Your task to perform on an android device: find photos in the google photos app Image 0: 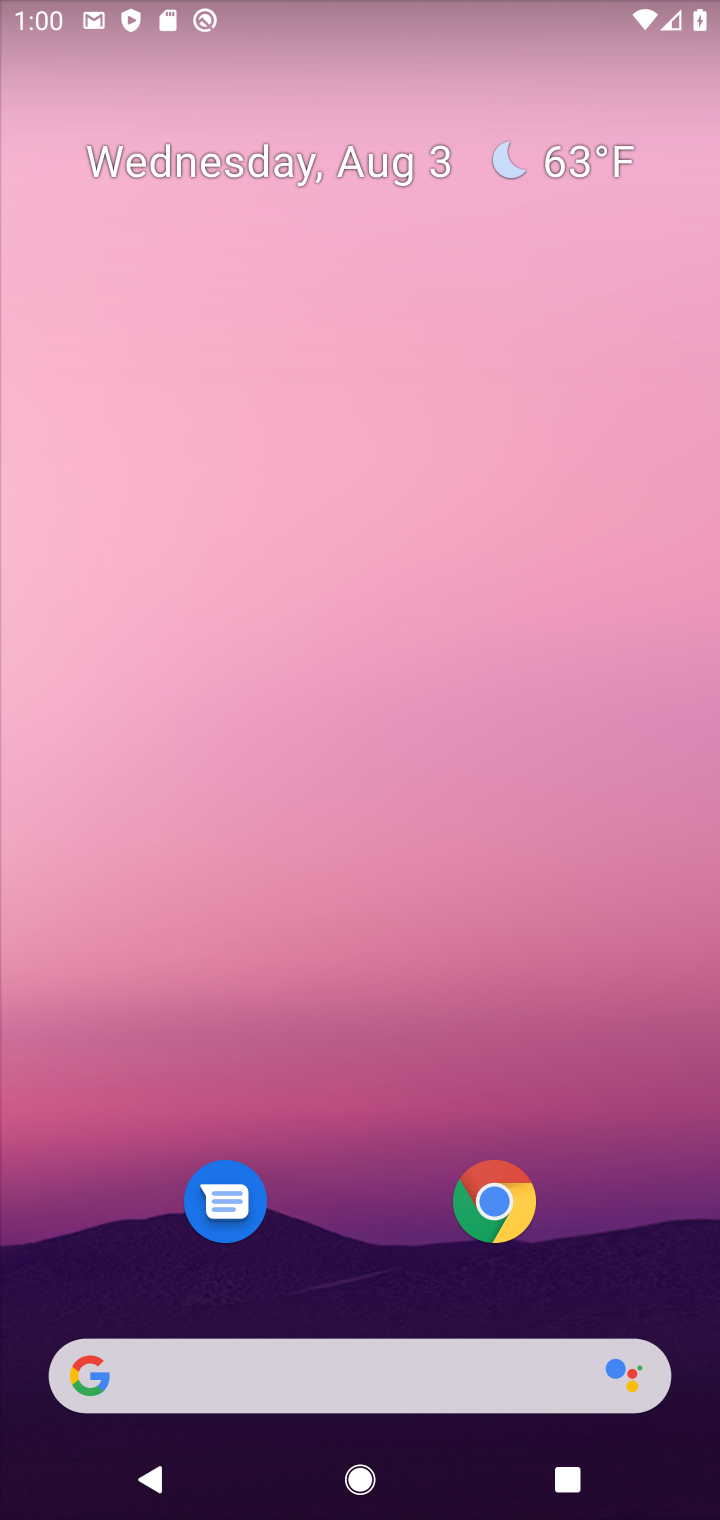
Step 0: drag from (344, 1377) to (588, 156)
Your task to perform on an android device: find photos in the google photos app Image 1: 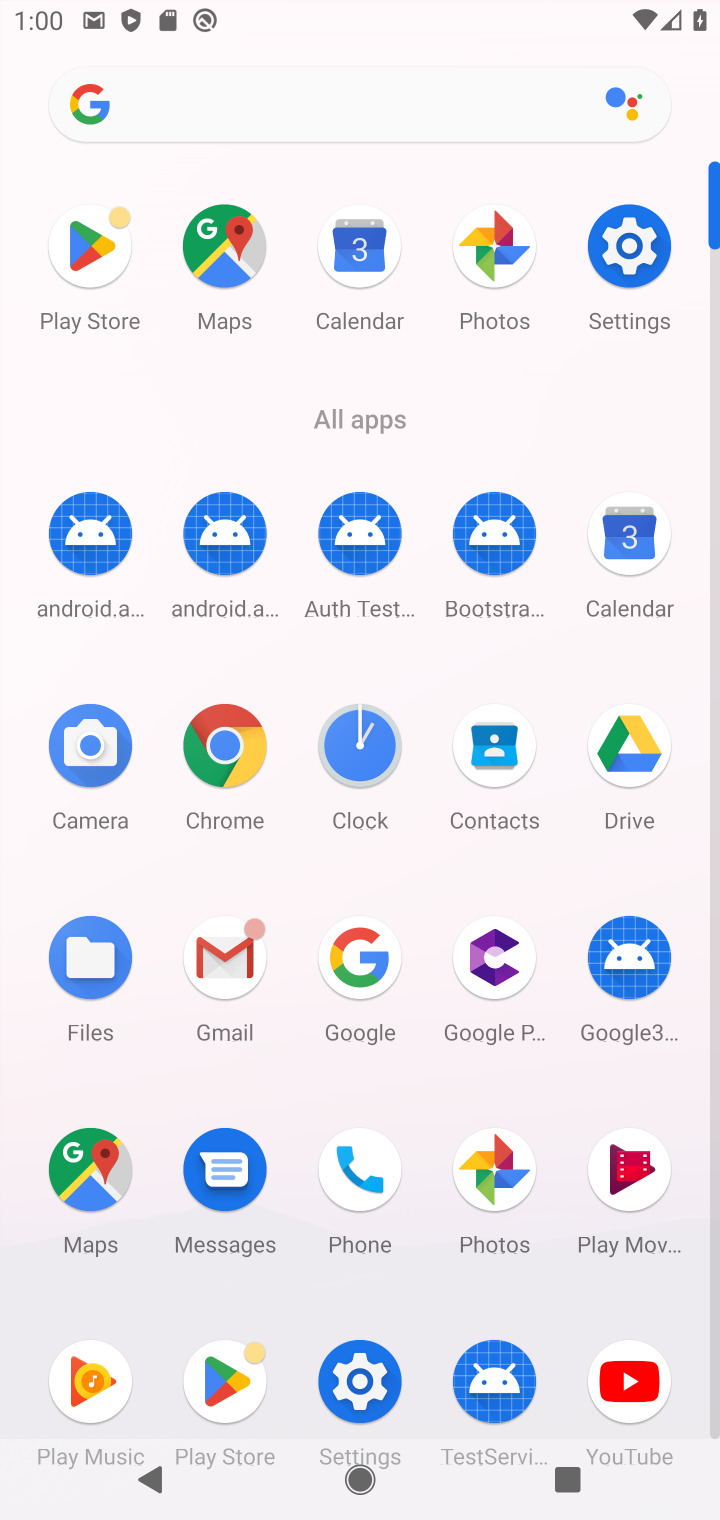
Step 1: click (503, 1177)
Your task to perform on an android device: find photos in the google photos app Image 2: 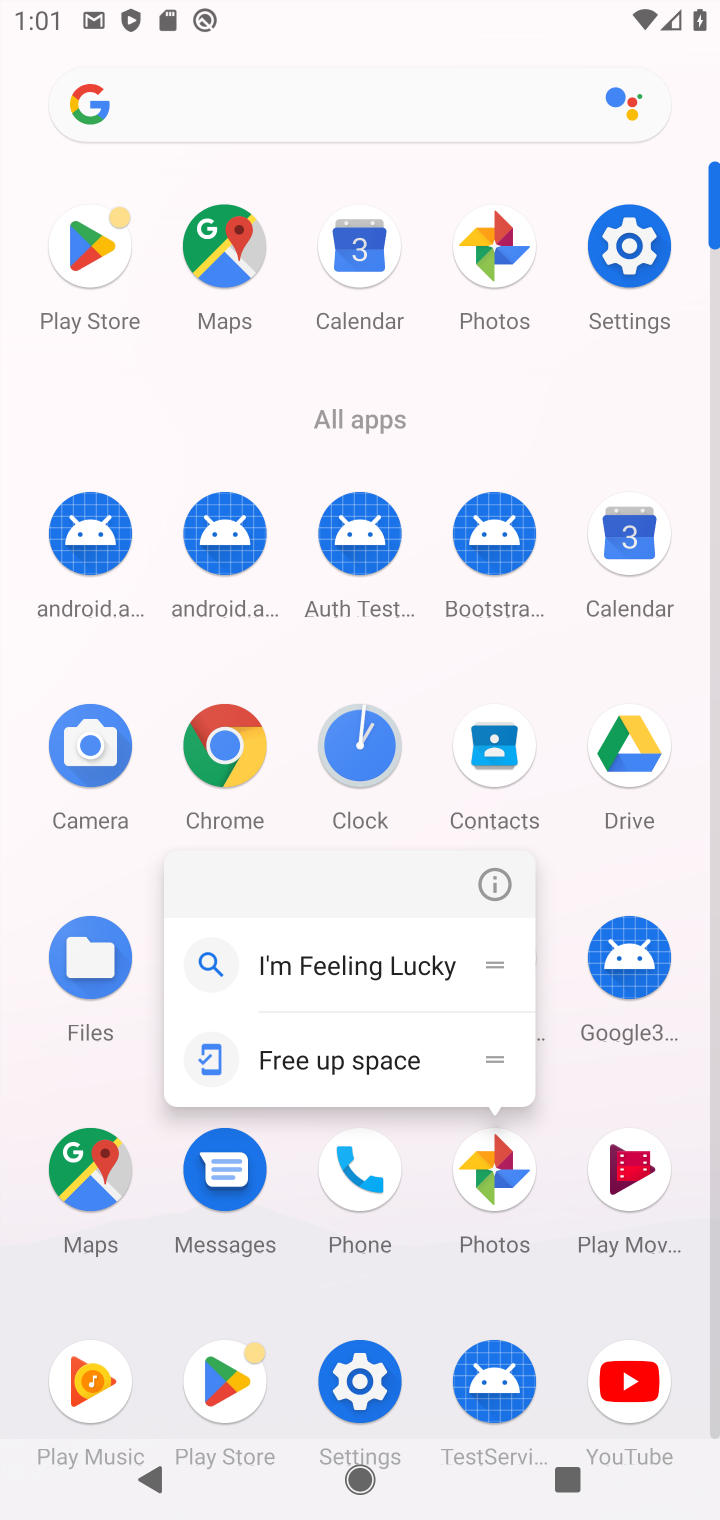
Step 2: click (503, 1181)
Your task to perform on an android device: find photos in the google photos app Image 3: 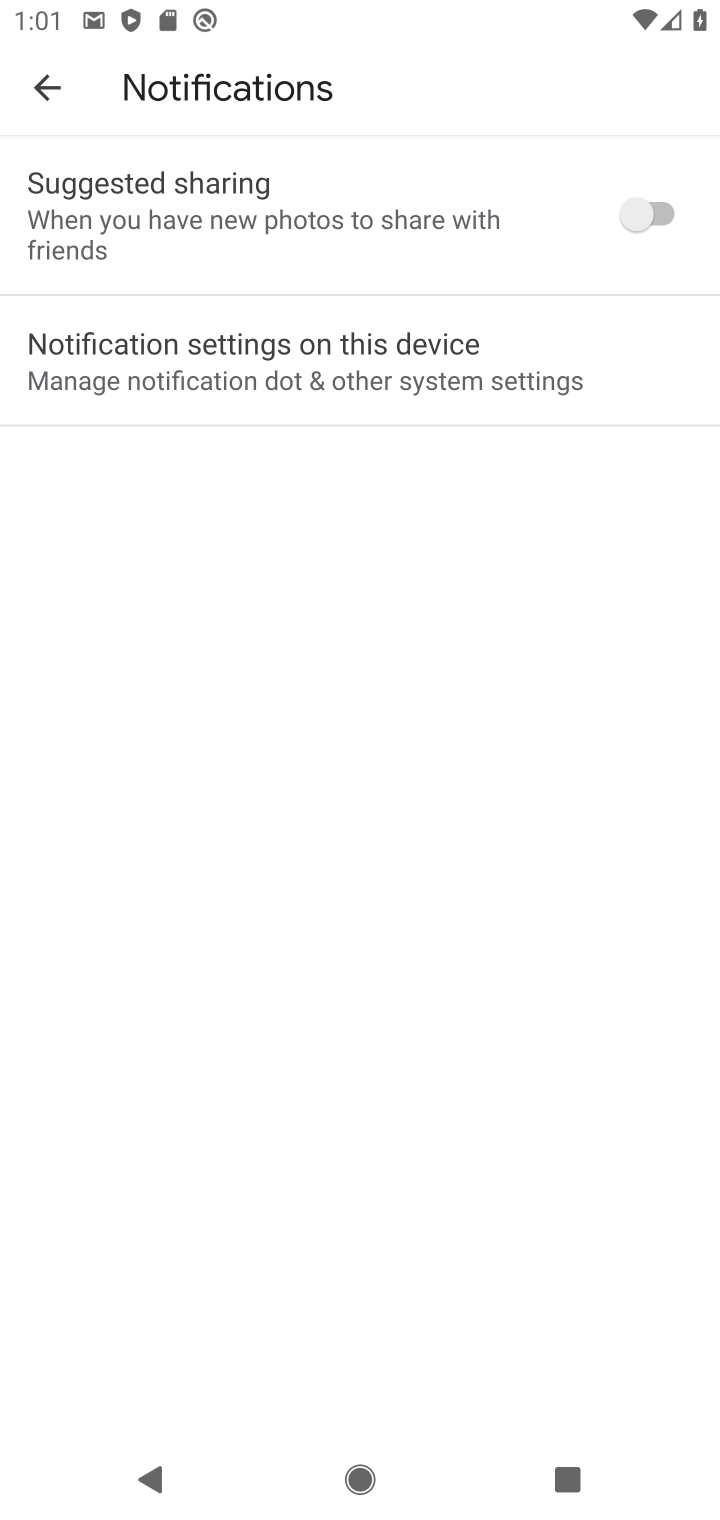
Step 3: click (45, 75)
Your task to perform on an android device: find photos in the google photos app Image 4: 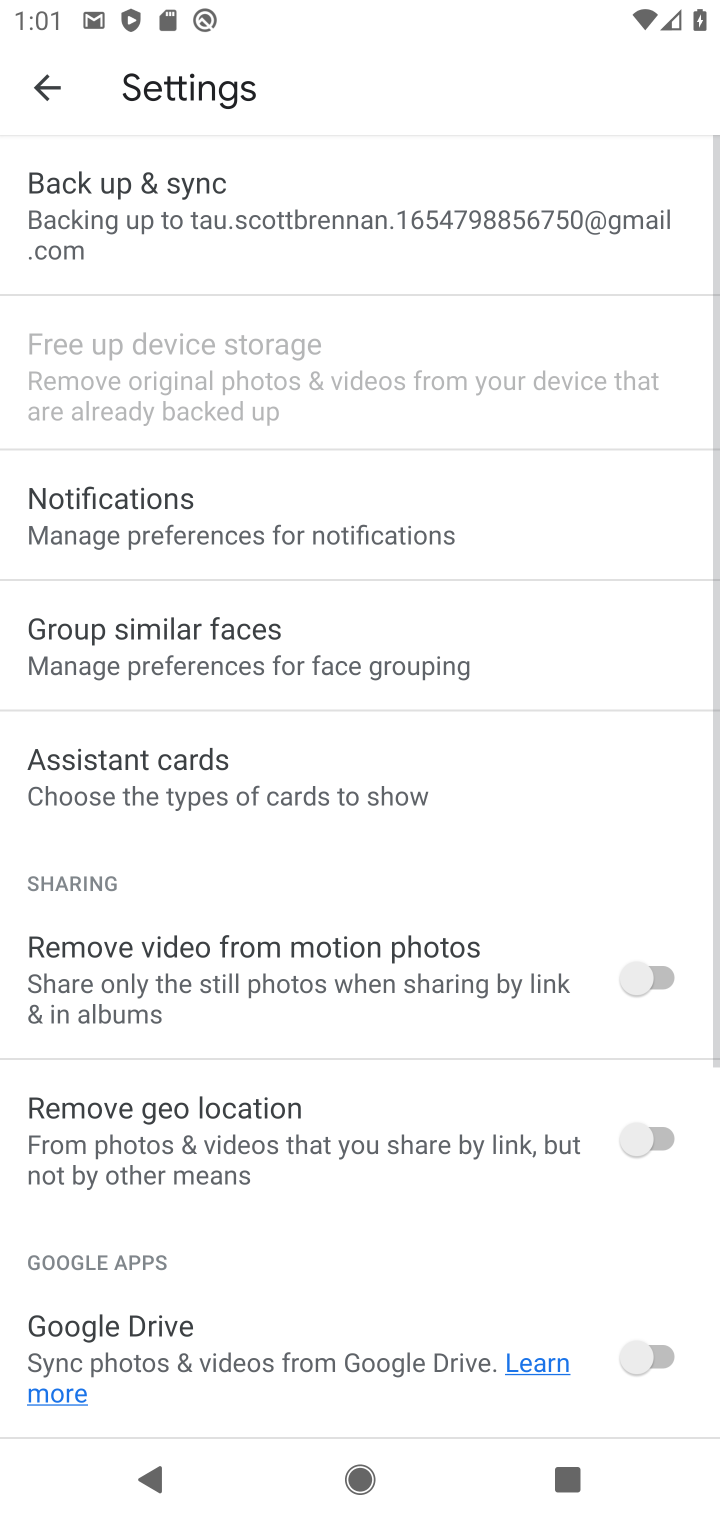
Step 4: click (9, 39)
Your task to perform on an android device: find photos in the google photos app Image 5: 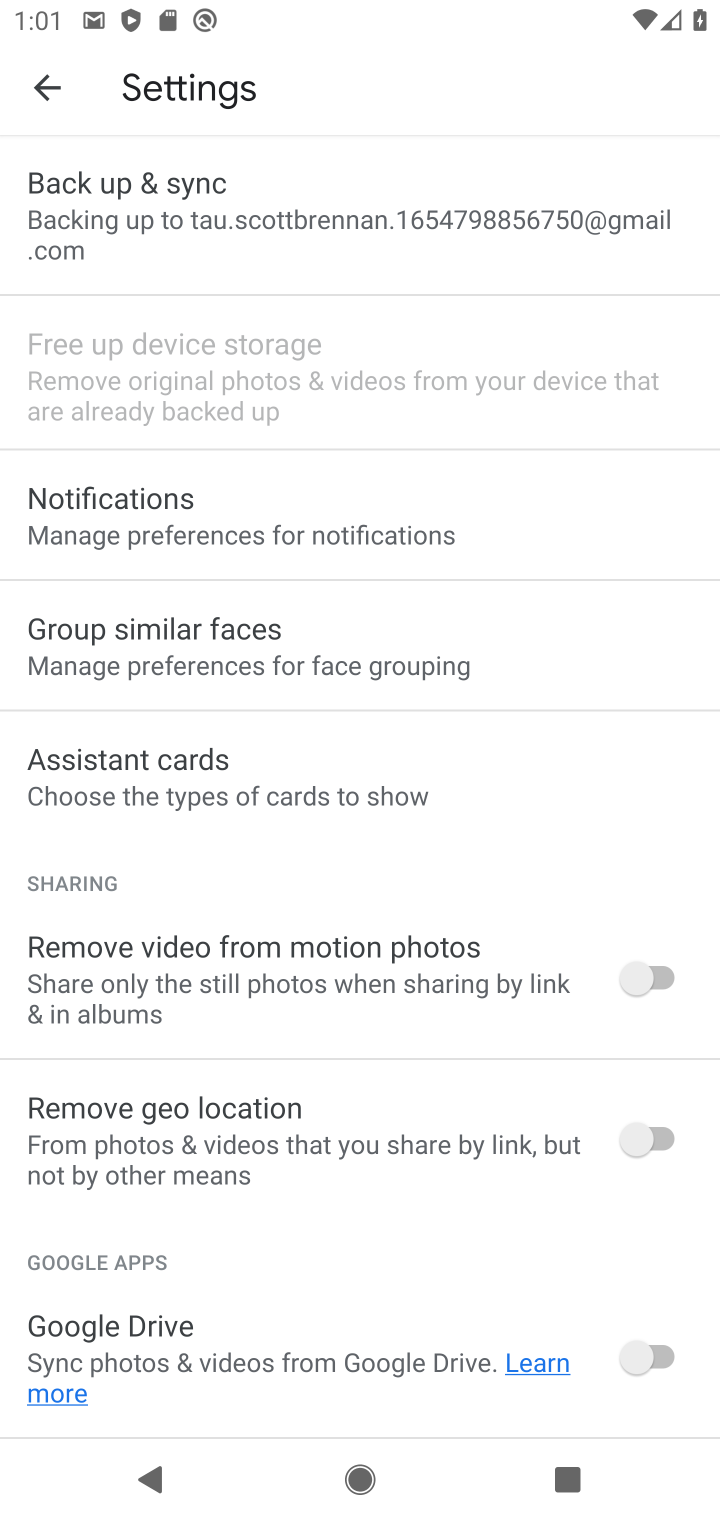
Step 5: click (57, 92)
Your task to perform on an android device: find photos in the google photos app Image 6: 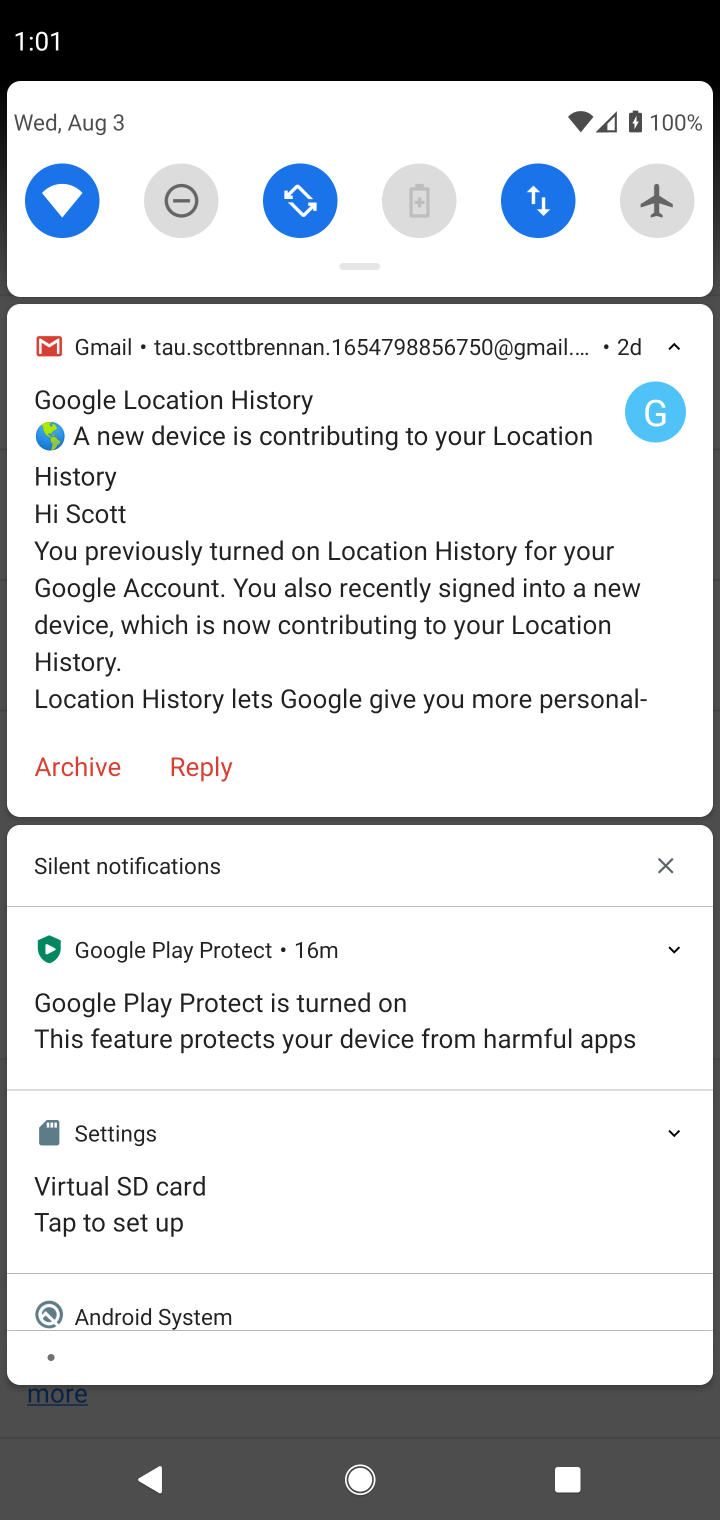
Step 6: press back button
Your task to perform on an android device: find photos in the google photos app Image 7: 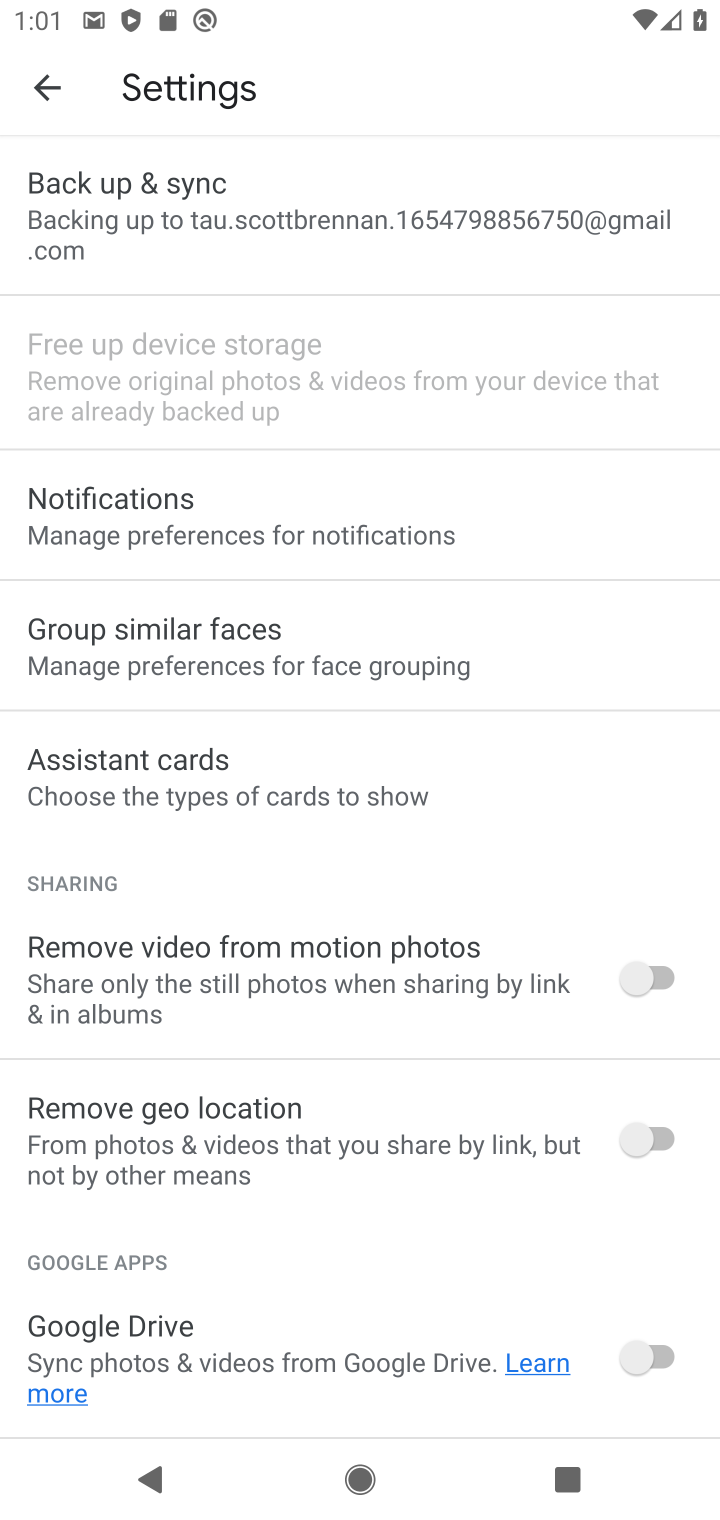
Step 7: click (43, 81)
Your task to perform on an android device: find photos in the google photos app Image 8: 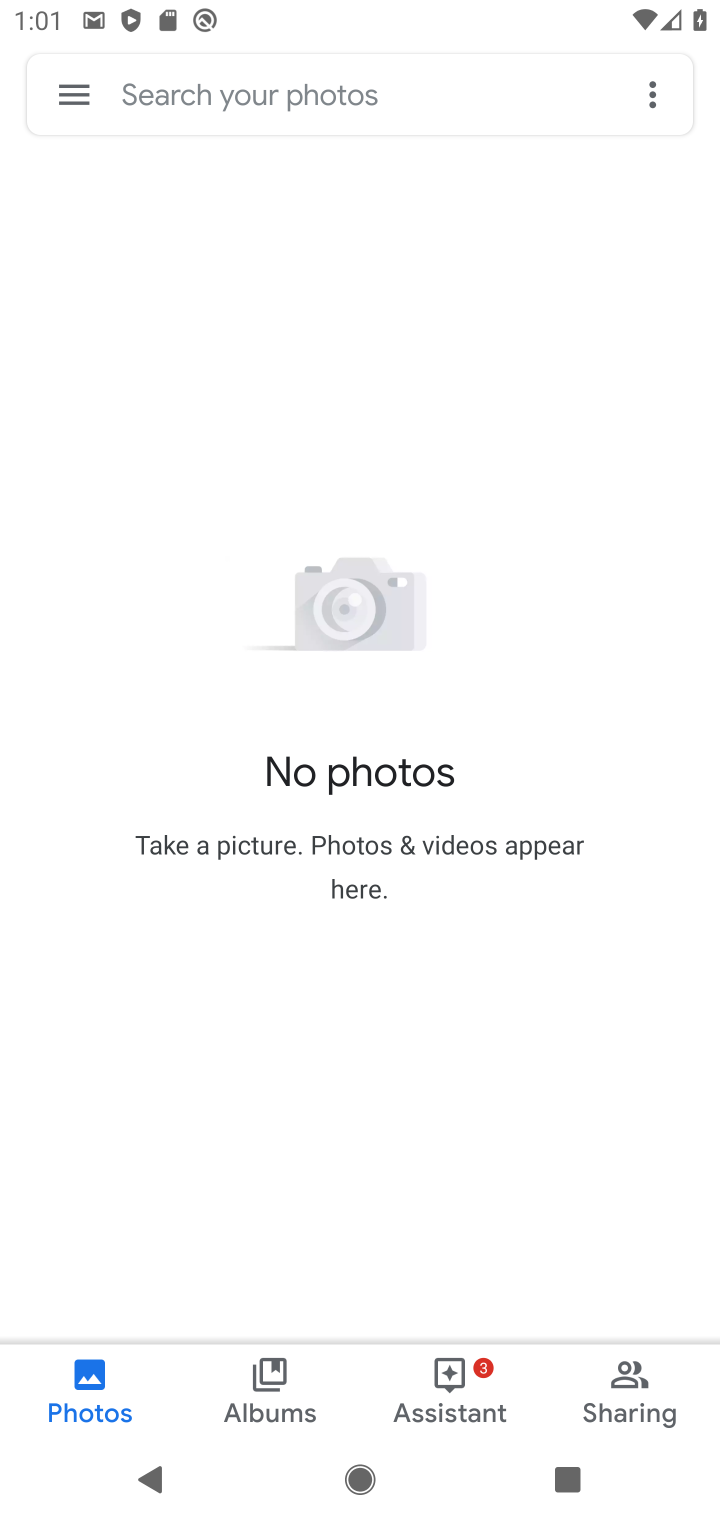
Step 8: task complete